Your task to perform on an android device: Open Google Chrome and open the bookmarks view Image 0: 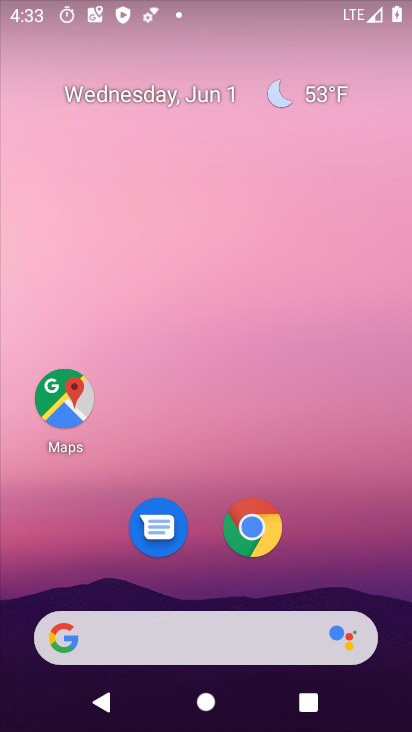
Step 0: drag from (344, 328) to (359, 17)
Your task to perform on an android device: Open Google Chrome and open the bookmarks view Image 1: 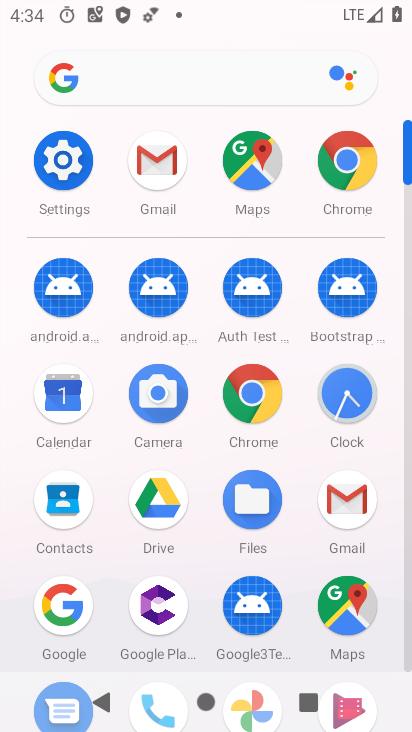
Step 1: click (255, 383)
Your task to perform on an android device: Open Google Chrome and open the bookmarks view Image 2: 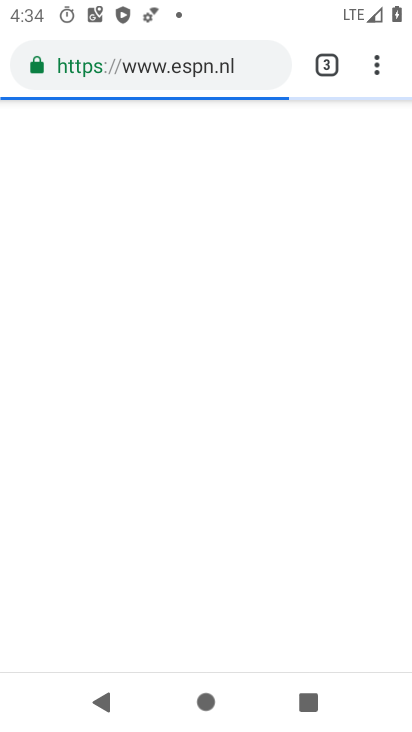
Step 2: task complete